Your task to perform on an android device: change timer sound Image 0: 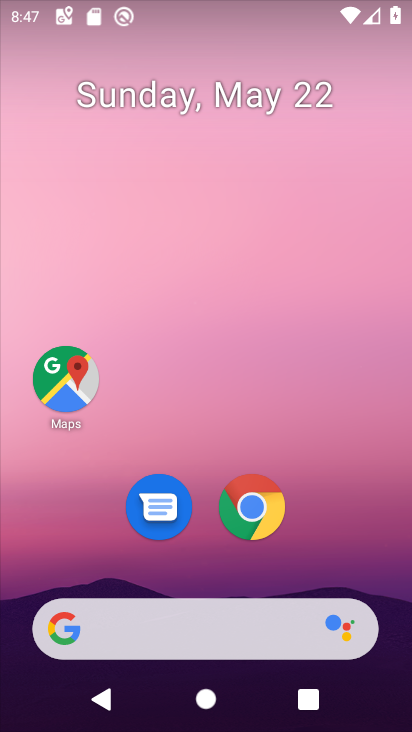
Step 0: drag from (281, 567) to (279, 121)
Your task to perform on an android device: change timer sound Image 1: 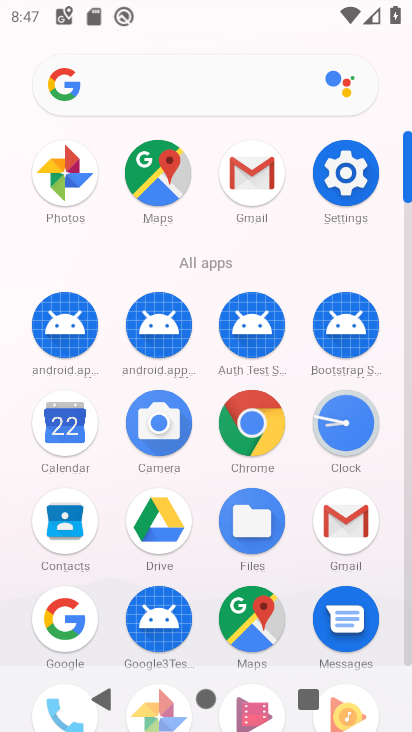
Step 1: click (328, 424)
Your task to perform on an android device: change timer sound Image 2: 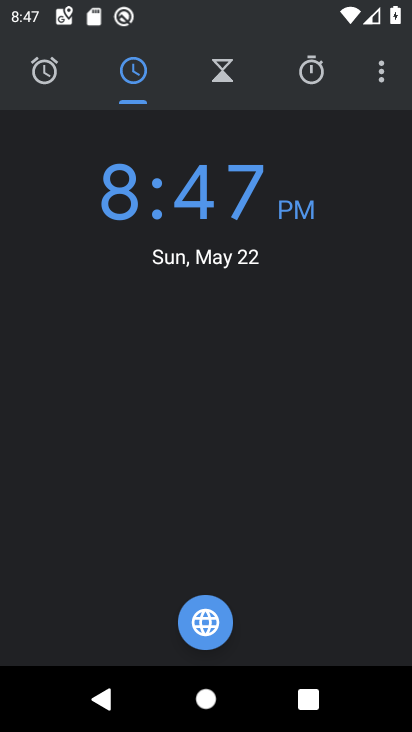
Step 2: click (385, 72)
Your task to perform on an android device: change timer sound Image 3: 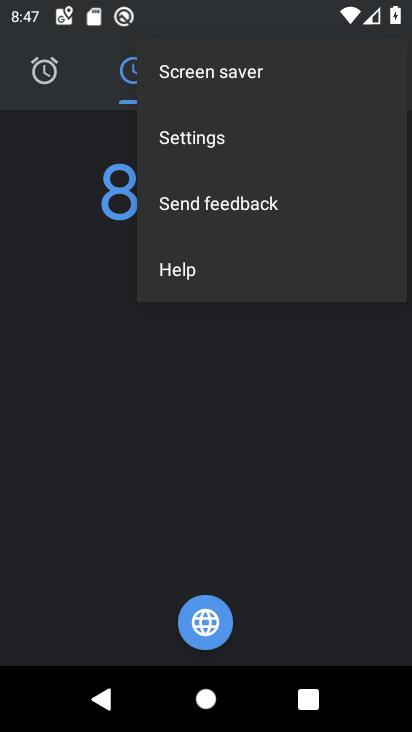
Step 3: click (219, 149)
Your task to perform on an android device: change timer sound Image 4: 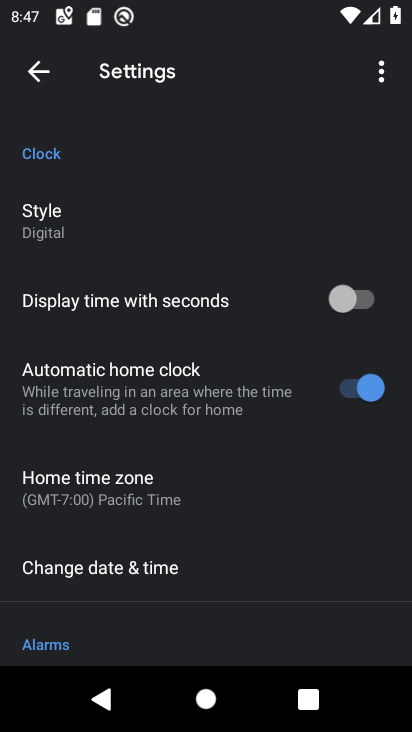
Step 4: drag from (190, 546) to (209, 326)
Your task to perform on an android device: change timer sound Image 5: 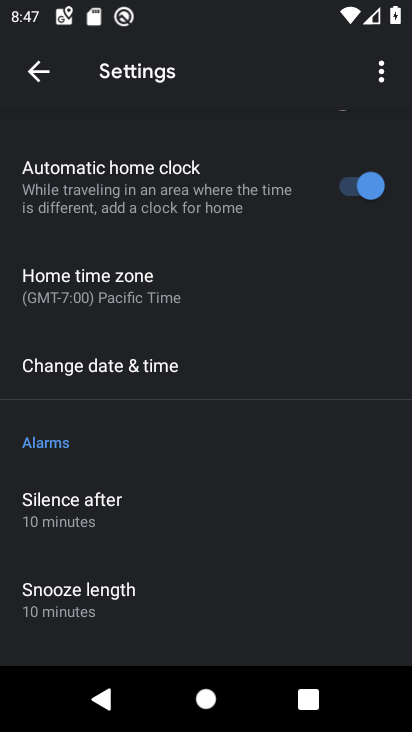
Step 5: drag from (236, 564) to (308, 198)
Your task to perform on an android device: change timer sound Image 6: 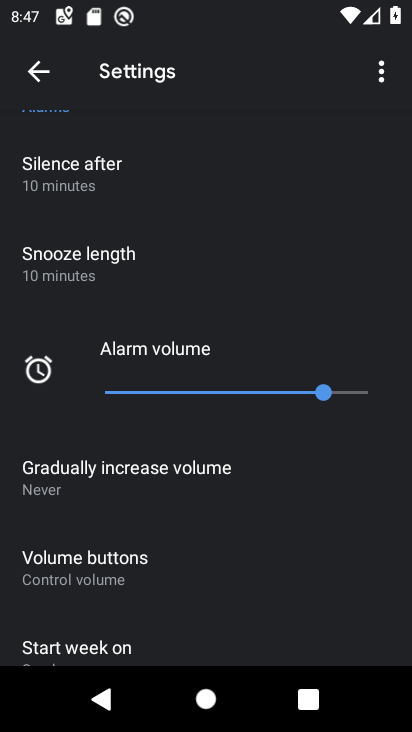
Step 6: drag from (171, 594) to (237, 117)
Your task to perform on an android device: change timer sound Image 7: 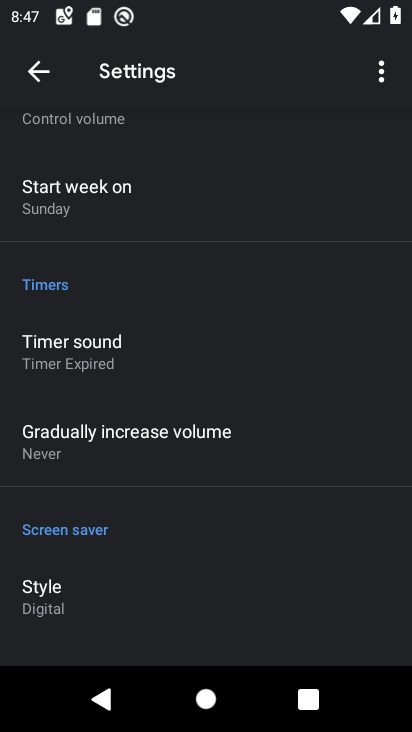
Step 7: click (45, 351)
Your task to perform on an android device: change timer sound Image 8: 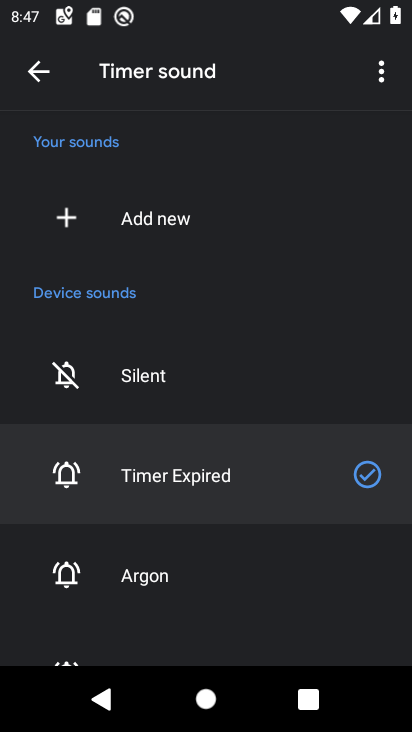
Step 8: click (280, 377)
Your task to perform on an android device: change timer sound Image 9: 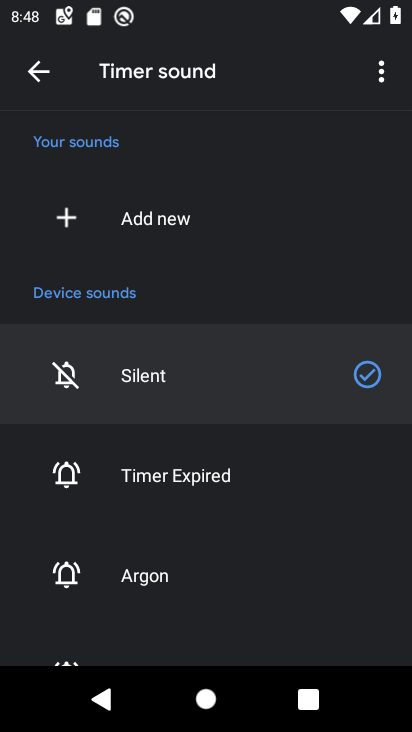
Step 9: click (340, 568)
Your task to perform on an android device: change timer sound Image 10: 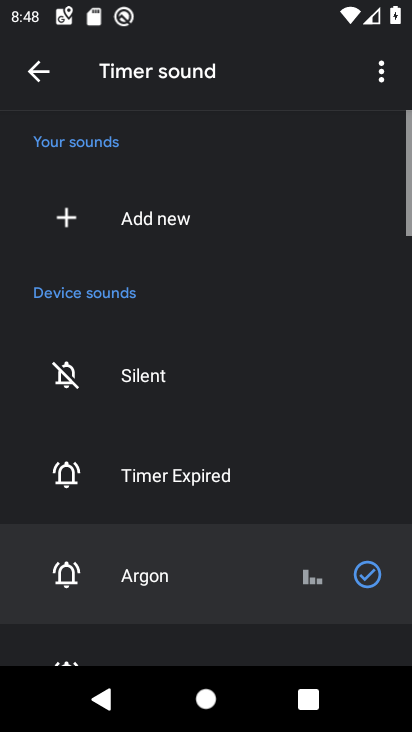
Step 10: task complete